Your task to perform on an android device: Search for a new highlighter Image 0: 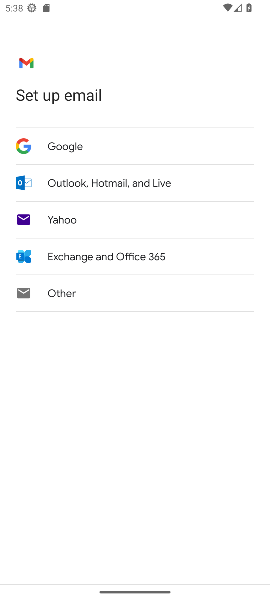
Step 0: press home button
Your task to perform on an android device: Search for a new highlighter Image 1: 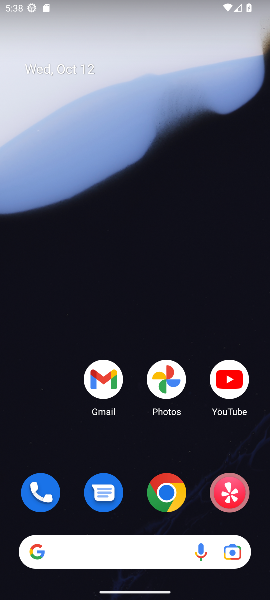
Step 1: click (170, 496)
Your task to perform on an android device: Search for a new highlighter Image 2: 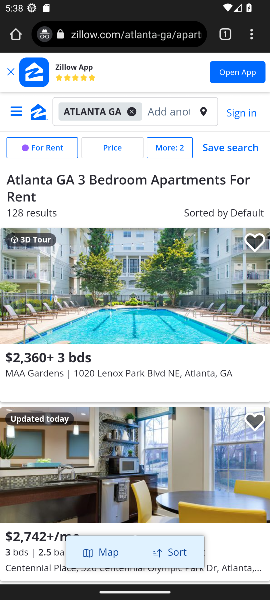
Step 2: click (102, 32)
Your task to perform on an android device: Search for a new highlighter Image 3: 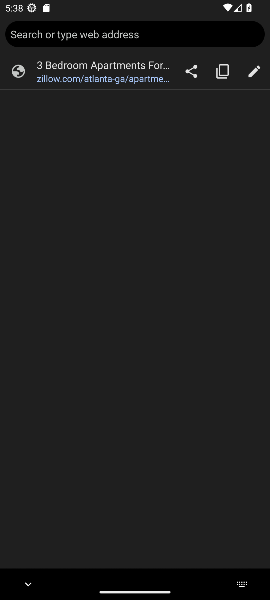
Step 3: type "new highlighter"
Your task to perform on an android device: Search for a new highlighter Image 4: 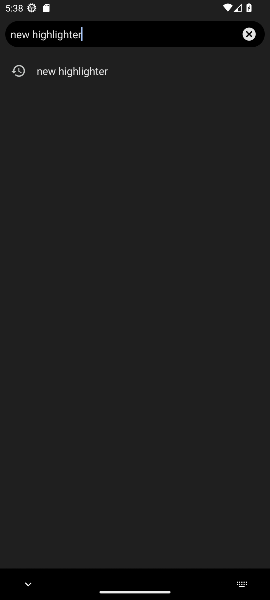
Step 4: click (82, 74)
Your task to perform on an android device: Search for a new highlighter Image 5: 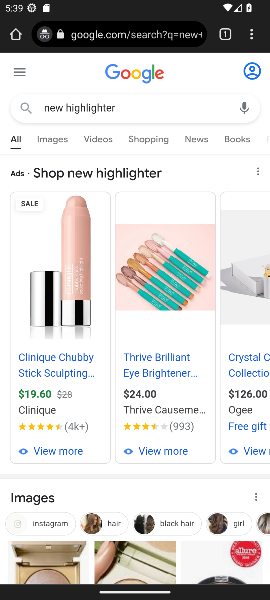
Step 5: click (136, 145)
Your task to perform on an android device: Search for a new highlighter Image 6: 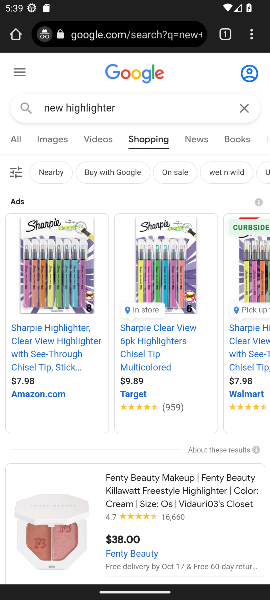
Step 6: task complete